Your task to perform on an android device: turn on javascript in the chrome app Image 0: 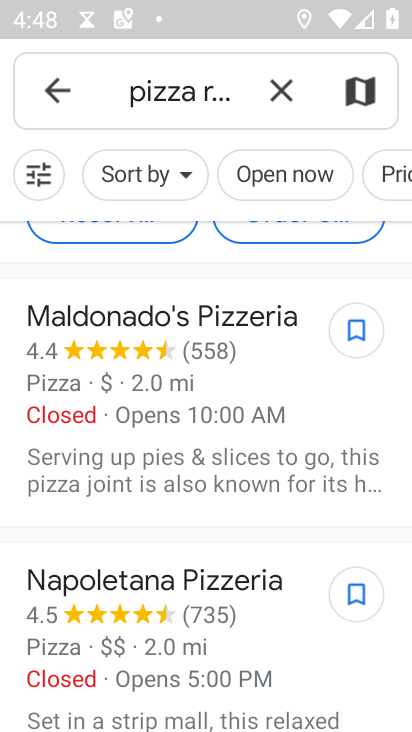
Step 0: press home button
Your task to perform on an android device: turn on javascript in the chrome app Image 1: 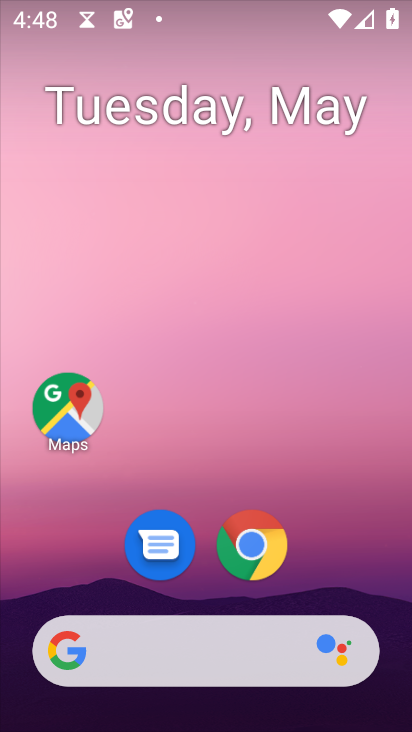
Step 1: click (253, 544)
Your task to perform on an android device: turn on javascript in the chrome app Image 2: 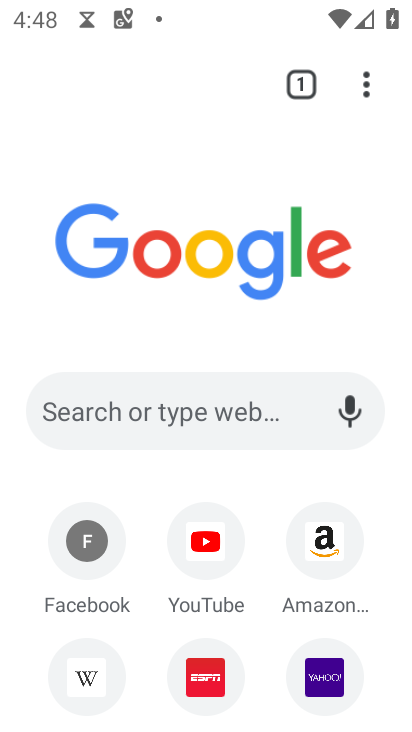
Step 2: click (366, 83)
Your task to perform on an android device: turn on javascript in the chrome app Image 3: 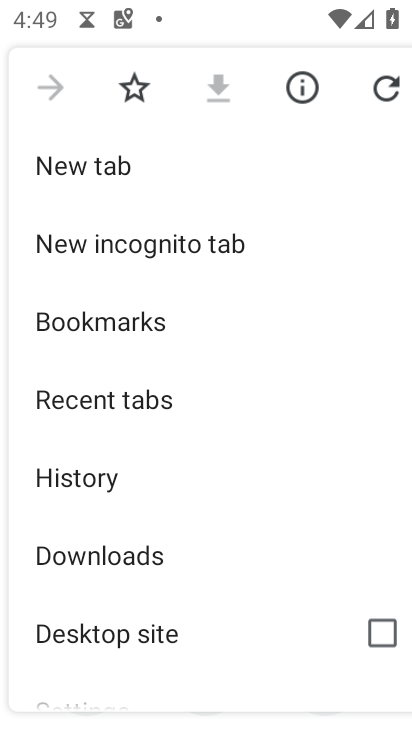
Step 3: drag from (154, 524) to (228, 416)
Your task to perform on an android device: turn on javascript in the chrome app Image 4: 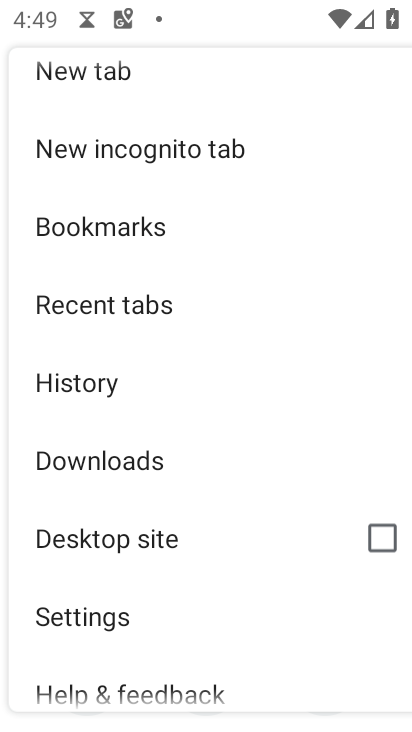
Step 4: drag from (96, 589) to (184, 465)
Your task to perform on an android device: turn on javascript in the chrome app Image 5: 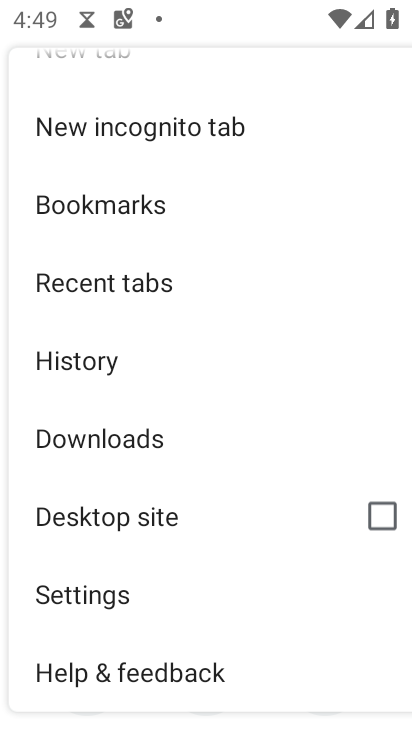
Step 5: click (96, 588)
Your task to perform on an android device: turn on javascript in the chrome app Image 6: 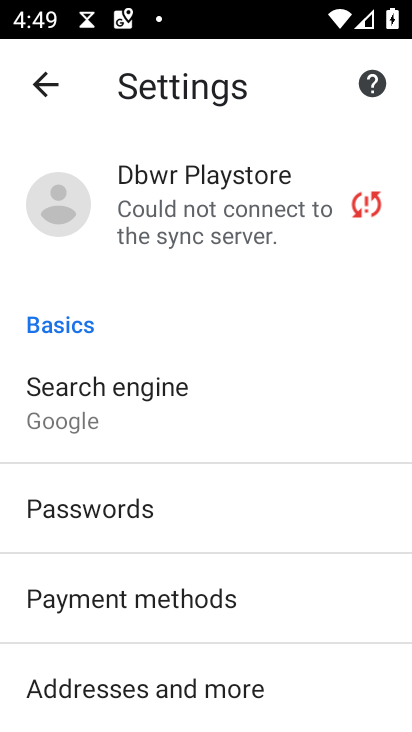
Step 6: drag from (162, 522) to (206, 429)
Your task to perform on an android device: turn on javascript in the chrome app Image 7: 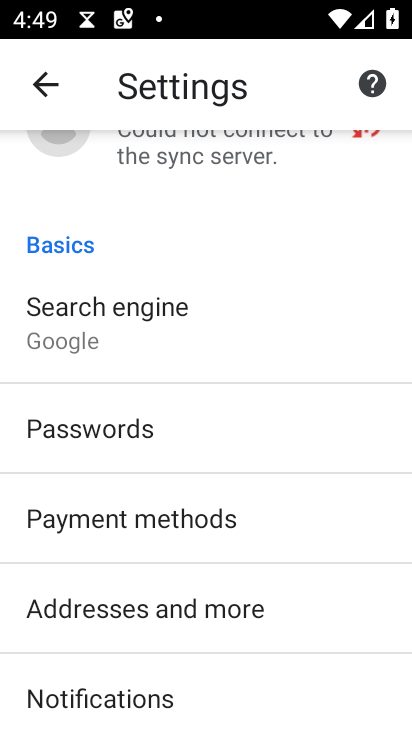
Step 7: drag from (149, 540) to (219, 432)
Your task to perform on an android device: turn on javascript in the chrome app Image 8: 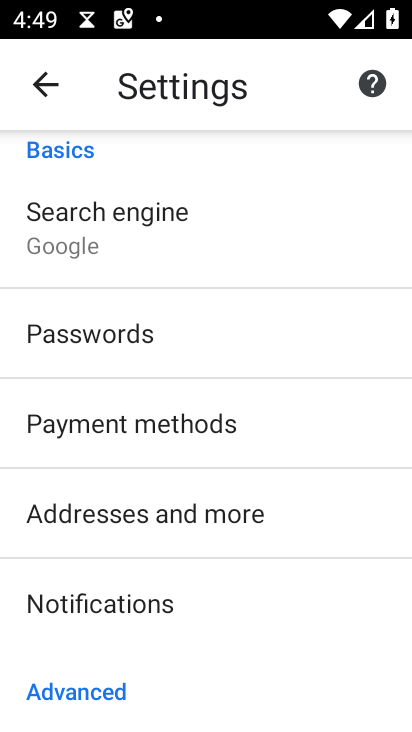
Step 8: drag from (143, 540) to (190, 449)
Your task to perform on an android device: turn on javascript in the chrome app Image 9: 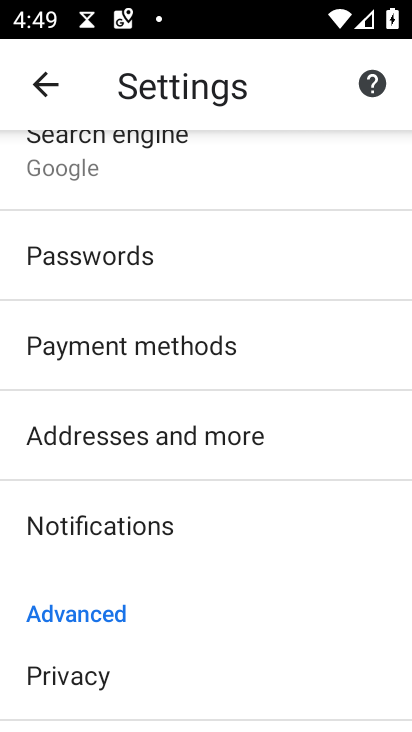
Step 9: drag from (103, 580) to (207, 453)
Your task to perform on an android device: turn on javascript in the chrome app Image 10: 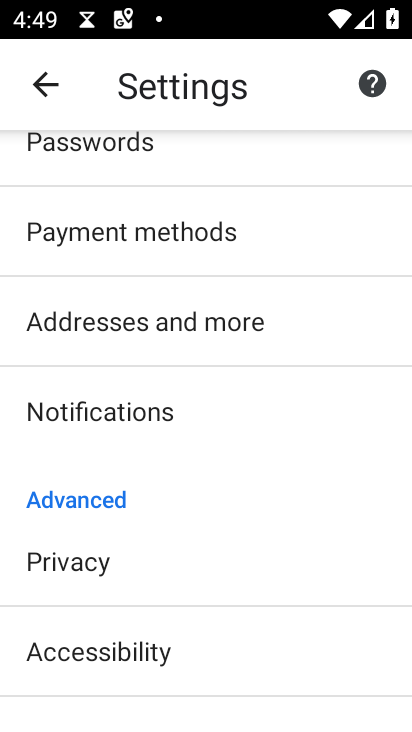
Step 10: drag from (117, 543) to (198, 432)
Your task to perform on an android device: turn on javascript in the chrome app Image 11: 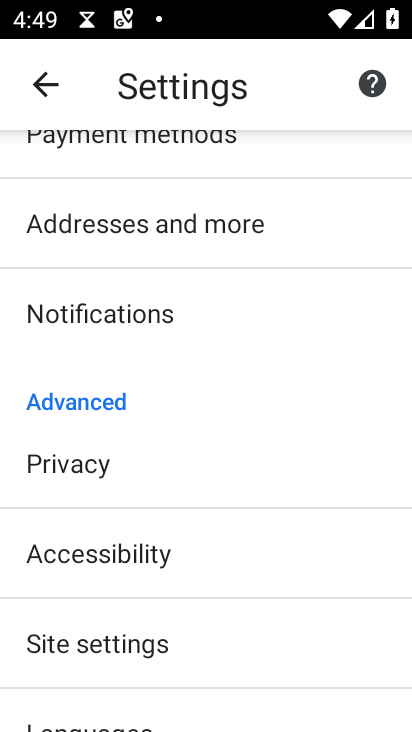
Step 11: drag from (112, 576) to (211, 427)
Your task to perform on an android device: turn on javascript in the chrome app Image 12: 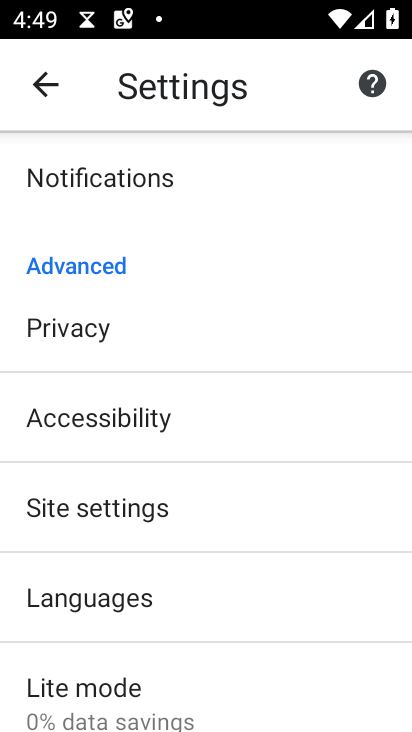
Step 12: click (115, 512)
Your task to perform on an android device: turn on javascript in the chrome app Image 13: 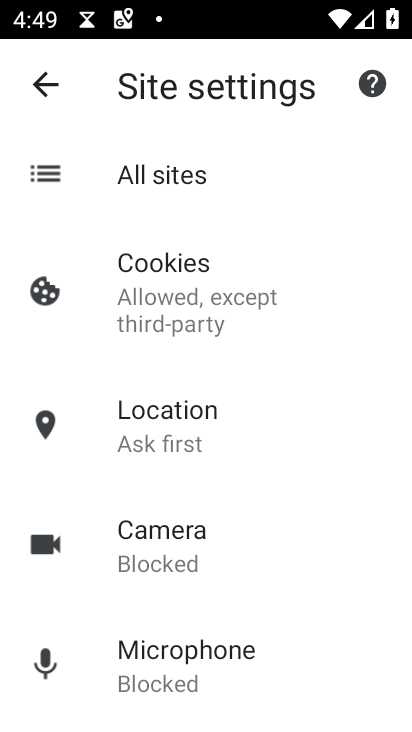
Step 13: drag from (171, 601) to (234, 466)
Your task to perform on an android device: turn on javascript in the chrome app Image 14: 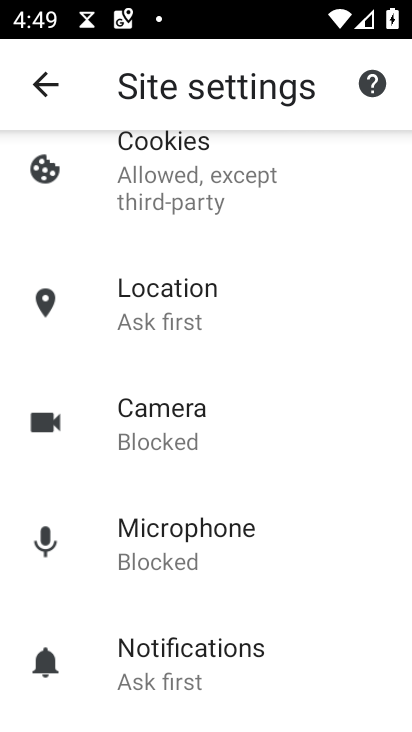
Step 14: drag from (189, 615) to (256, 487)
Your task to perform on an android device: turn on javascript in the chrome app Image 15: 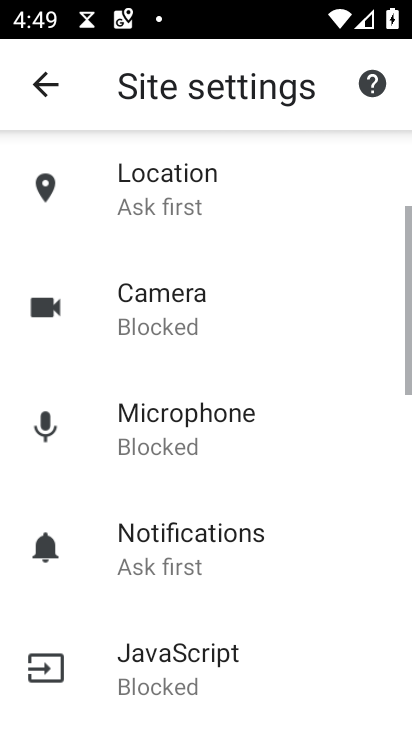
Step 15: drag from (178, 598) to (219, 488)
Your task to perform on an android device: turn on javascript in the chrome app Image 16: 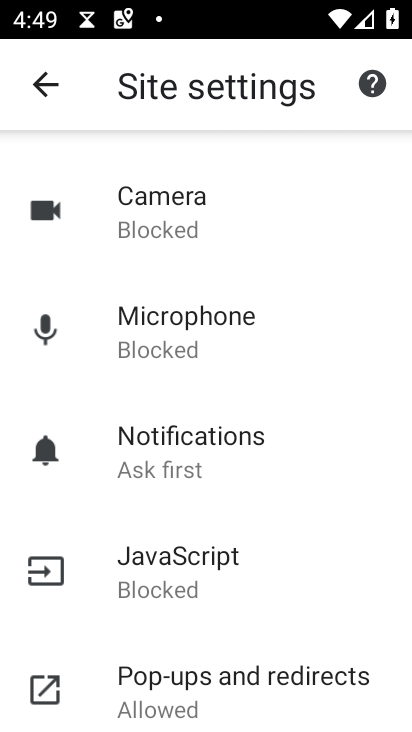
Step 16: click (189, 557)
Your task to perform on an android device: turn on javascript in the chrome app Image 17: 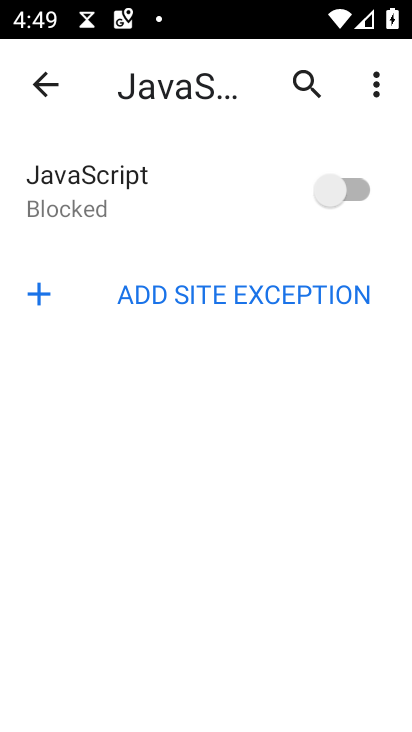
Step 17: click (348, 184)
Your task to perform on an android device: turn on javascript in the chrome app Image 18: 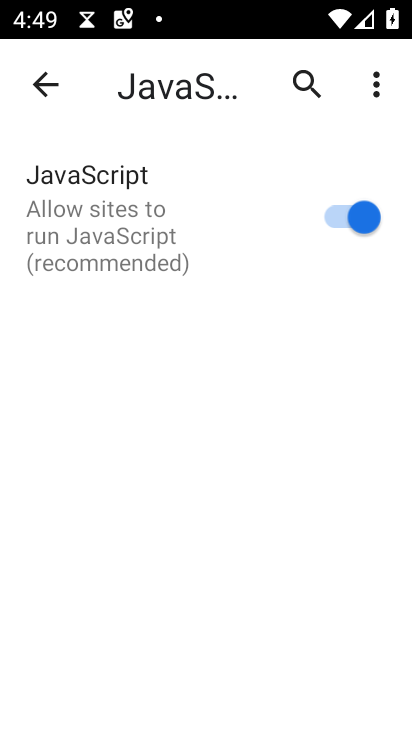
Step 18: task complete